Your task to perform on an android device: turn off picture-in-picture Image 0: 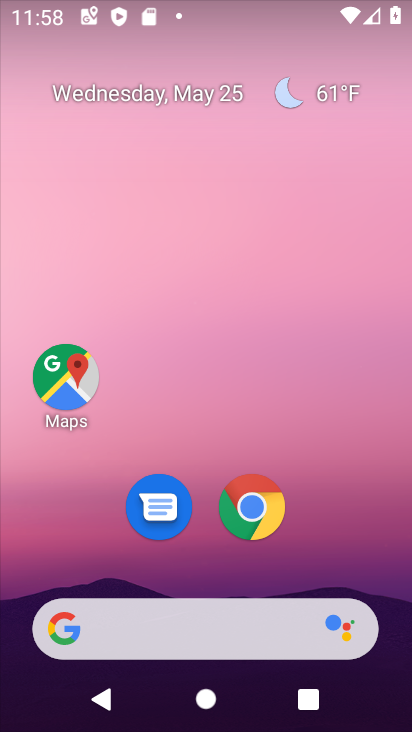
Step 0: drag from (377, 563) to (196, 5)
Your task to perform on an android device: turn off picture-in-picture Image 1: 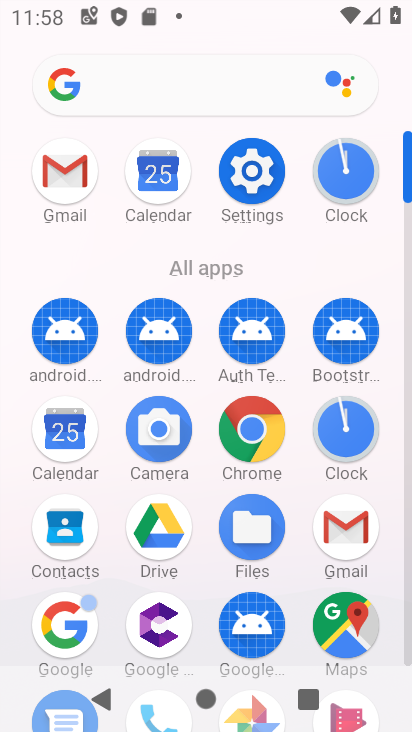
Step 1: click (265, 200)
Your task to perform on an android device: turn off picture-in-picture Image 2: 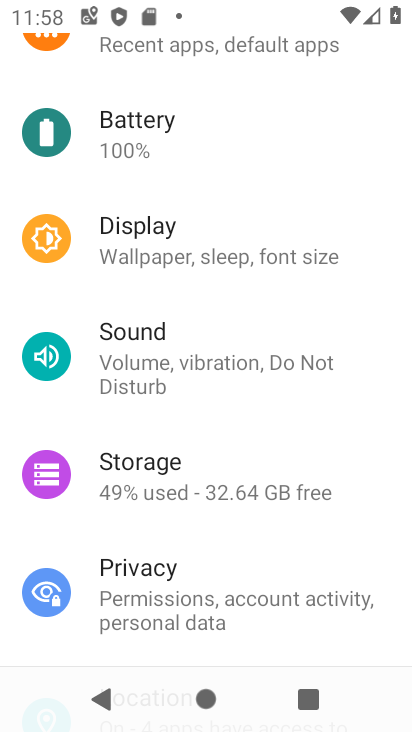
Step 2: drag from (221, 84) to (290, 311)
Your task to perform on an android device: turn off picture-in-picture Image 3: 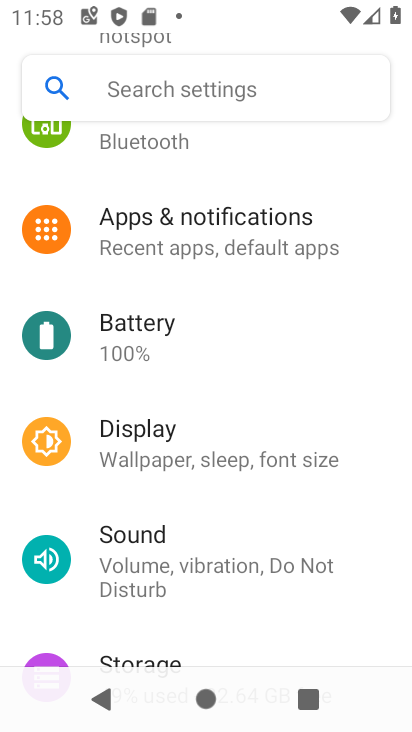
Step 3: drag from (232, 344) to (295, 692)
Your task to perform on an android device: turn off picture-in-picture Image 4: 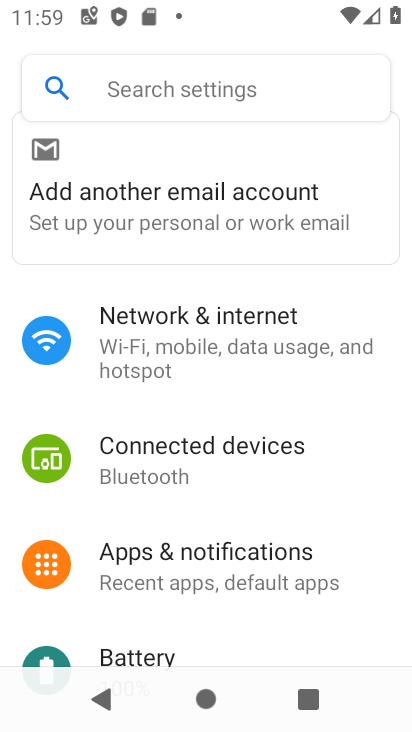
Step 4: drag from (245, 503) to (242, 301)
Your task to perform on an android device: turn off picture-in-picture Image 5: 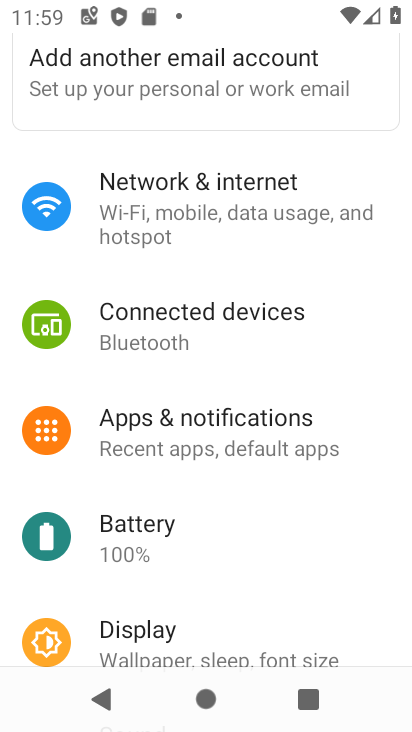
Step 5: click (227, 392)
Your task to perform on an android device: turn off picture-in-picture Image 6: 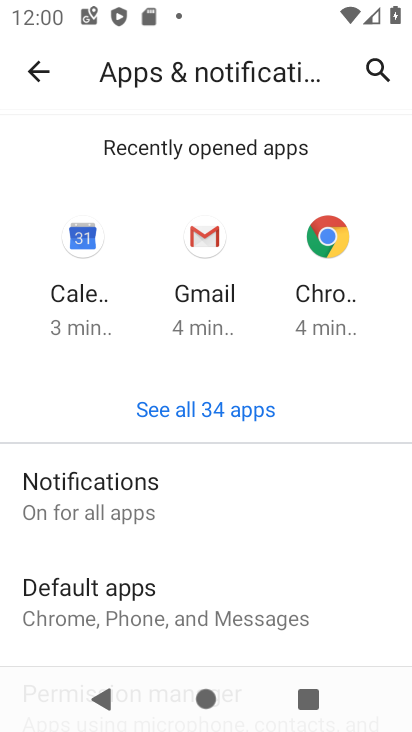
Step 6: drag from (161, 560) to (137, 109)
Your task to perform on an android device: turn off picture-in-picture Image 7: 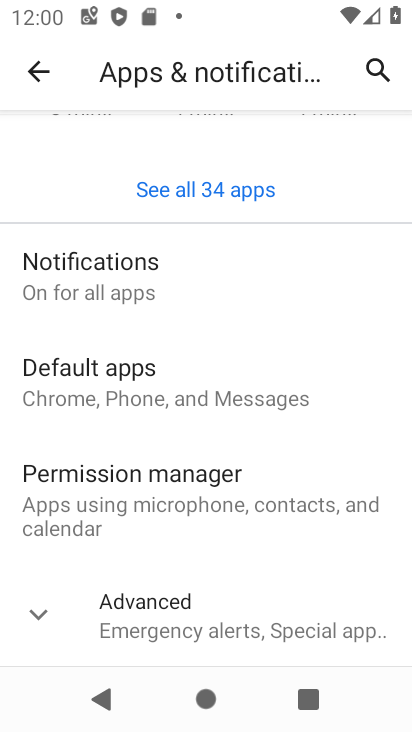
Step 7: drag from (152, 582) to (172, 260)
Your task to perform on an android device: turn off picture-in-picture Image 8: 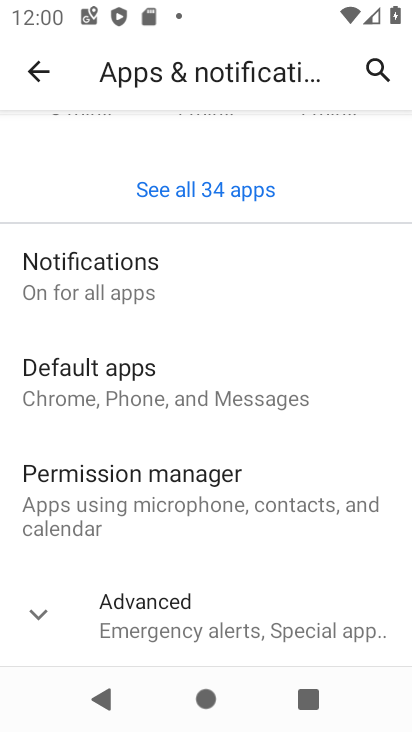
Step 8: drag from (113, 572) to (119, 333)
Your task to perform on an android device: turn off picture-in-picture Image 9: 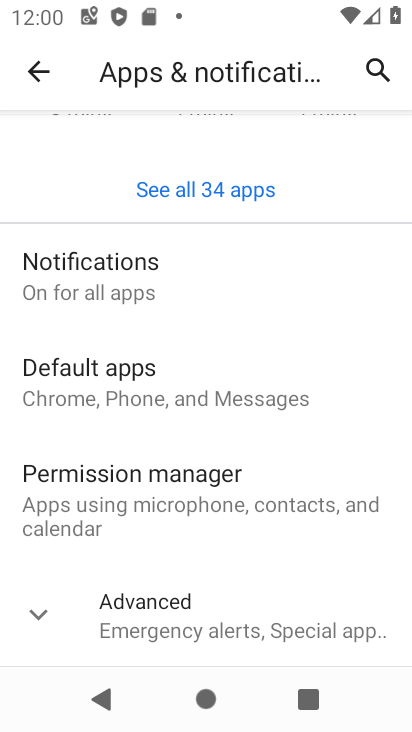
Step 9: click (168, 637)
Your task to perform on an android device: turn off picture-in-picture Image 10: 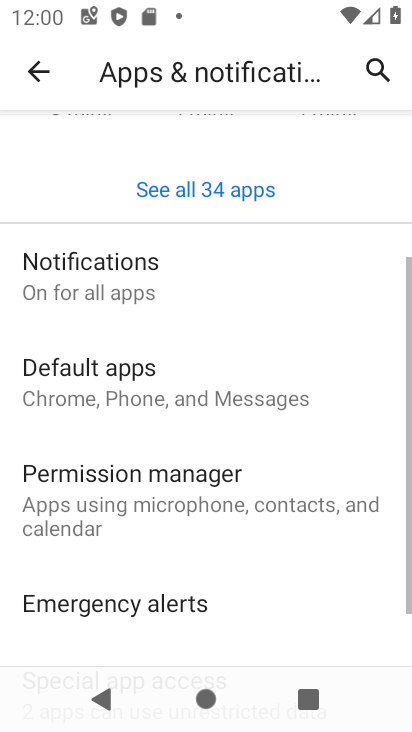
Step 10: drag from (274, 551) to (295, 100)
Your task to perform on an android device: turn off picture-in-picture Image 11: 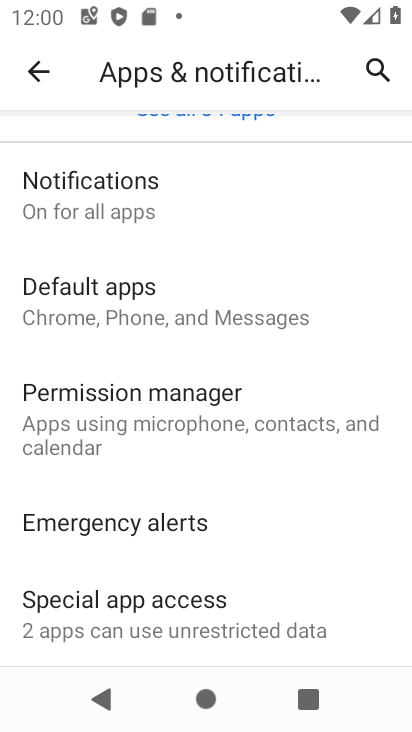
Step 11: click (201, 597)
Your task to perform on an android device: turn off picture-in-picture Image 12: 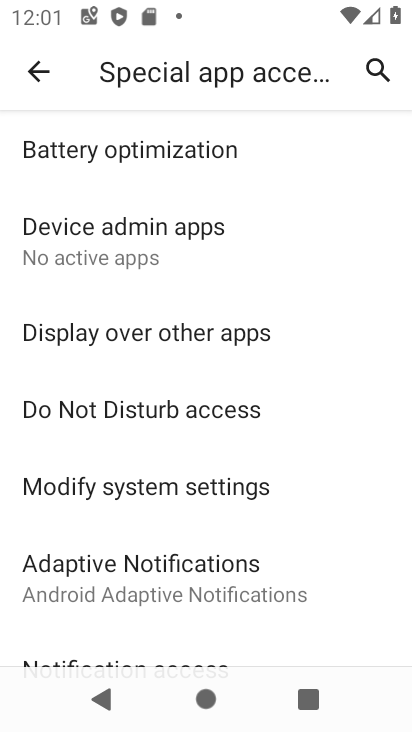
Step 12: task complete